Your task to perform on an android device: Show me productivity apps on the Play Store Image 0: 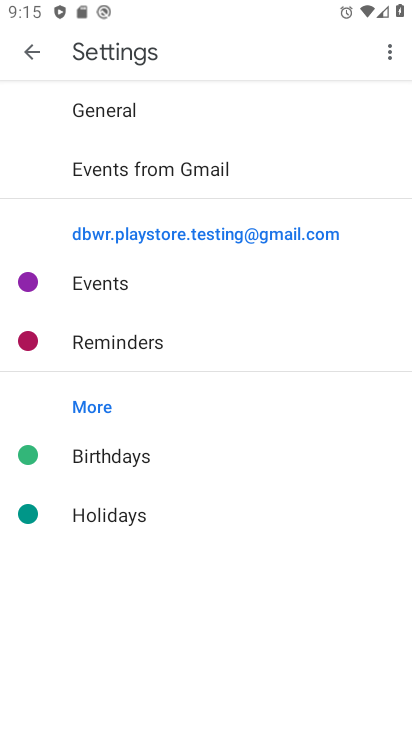
Step 0: press back button
Your task to perform on an android device: Show me productivity apps on the Play Store Image 1: 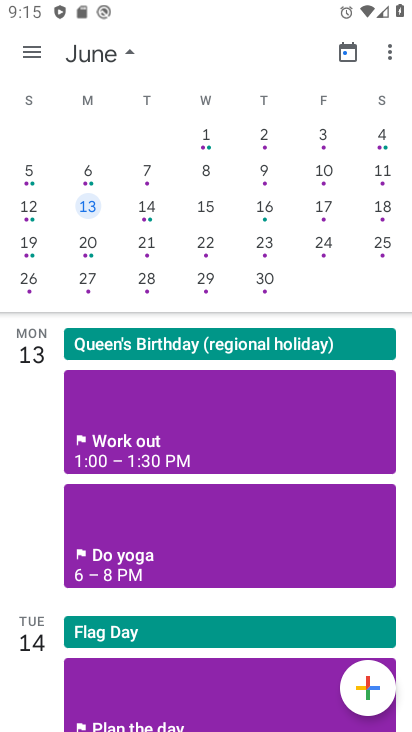
Step 1: press back button
Your task to perform on an android device: Show me productivity apps on the Play Store Image 2: 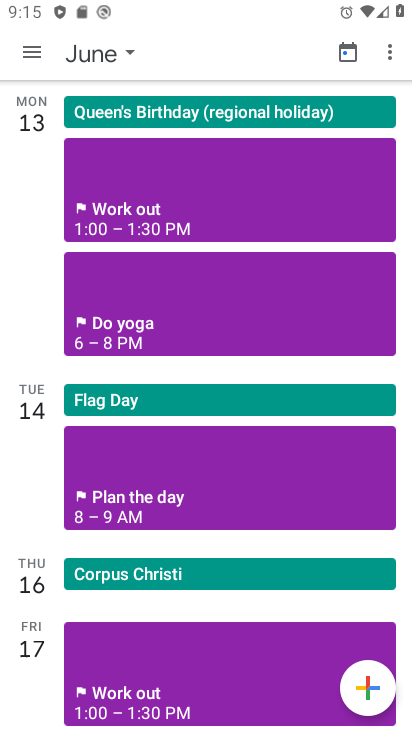
Step 2: press back button
Your task to perform on an android device: Show me productivity apps on the Play Store Image 3: 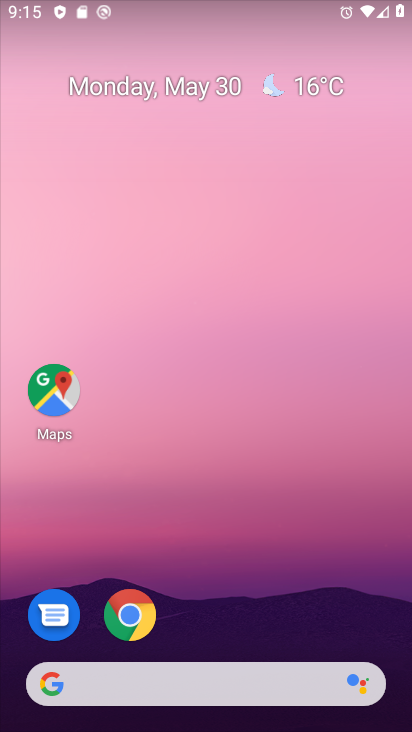
Step 3: drag from (304, 571) to (310, 24)
Your task to perform on an android device: Show me productivity apps on the Play Store Image 4: 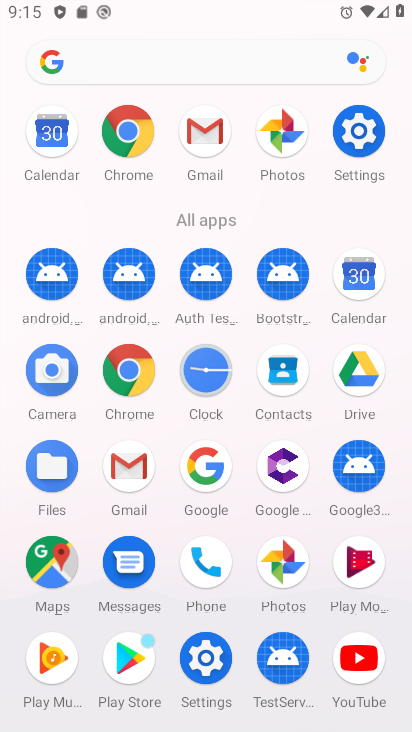
Step 4: click (119, 653)
Your task to perform on an android device: Show me productivity apps on the Play Store Image 5: 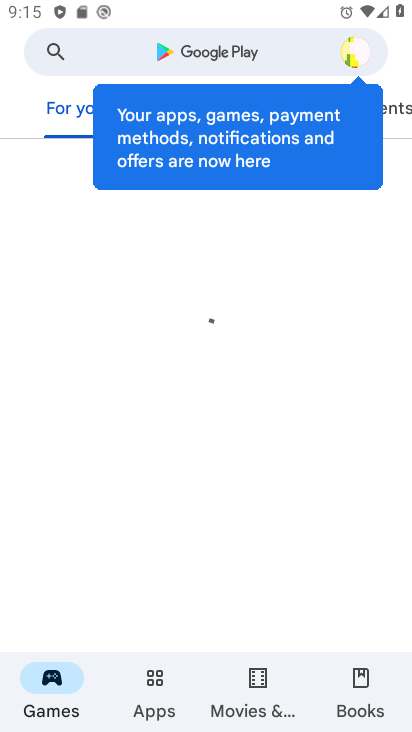
Step 5: press back button
Your task to perform on an android device: Show me productivity apps on the Play Store Image 6: 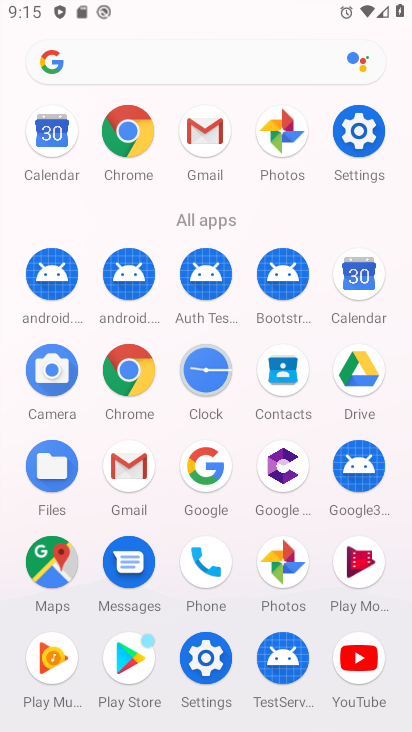
Step 6: click (129, 653)
Your task to perform on an android device: Show me productivity apps on the Play Store Image 7: 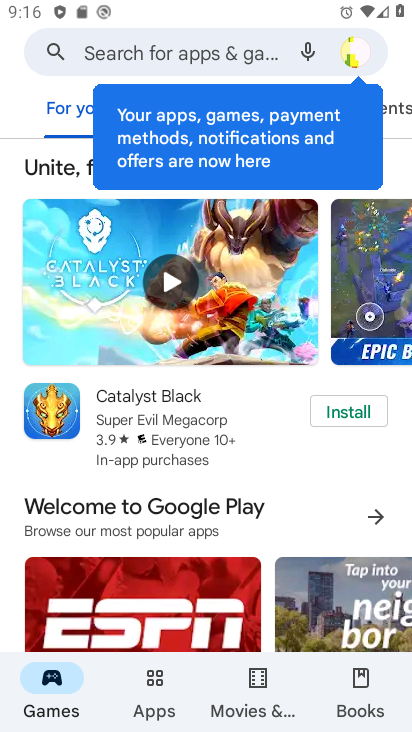
Step 7: click (156, 692)
Your task to perform on an android device: Show me productivity apps on the Play Store Image 8: 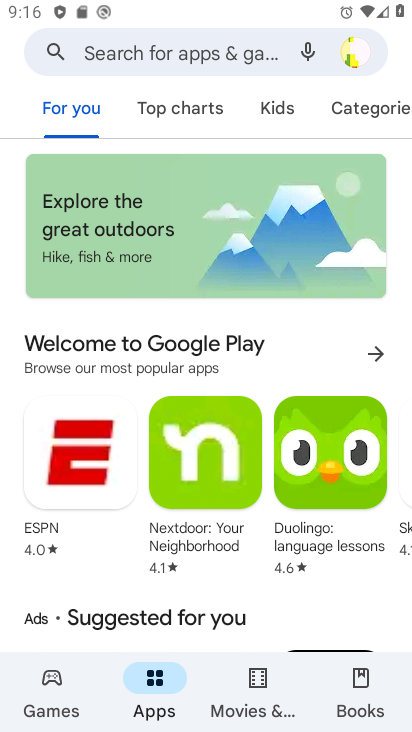
Step 8: drag from (212, 572) to (248, 88)
Your task to perform on an android device: Show me productivity apps on the Play Store Image 9: 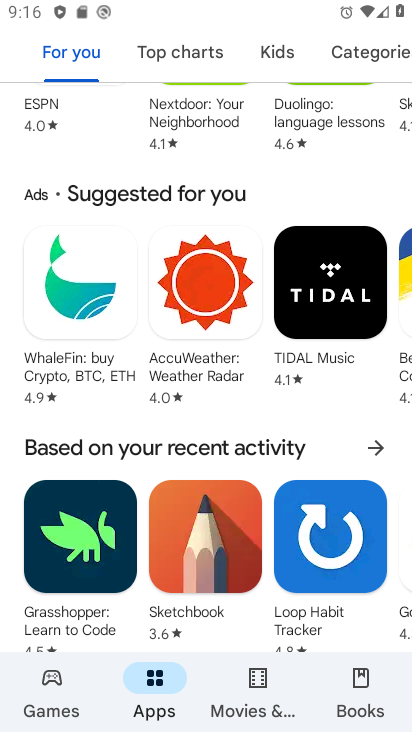
Step 9: drag from (227, 583) to (238, 102)
Your task to perform on an android device: Show me productivity apps on the Play Store Image 10: 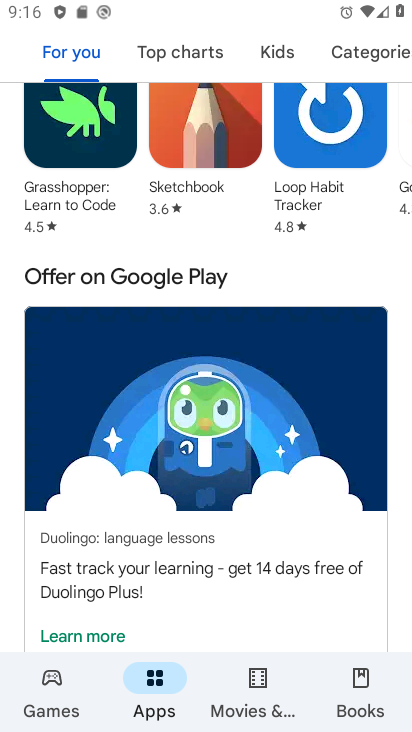
Step 10: drag from (278, 580) to (315, 46)
Your task to perform on an android device: Show me productivity apps on the Play Store Image 11: 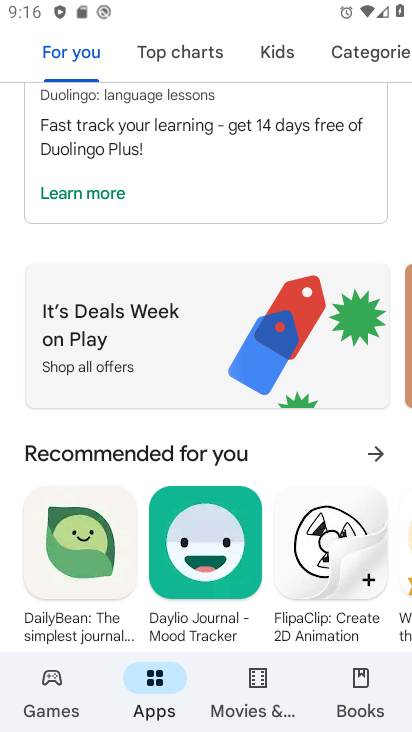
Step 11: drag from (210, 499) to (301, 83)
Your task to perform on an android device: Show me productivity apps on the Play Store Image 12: 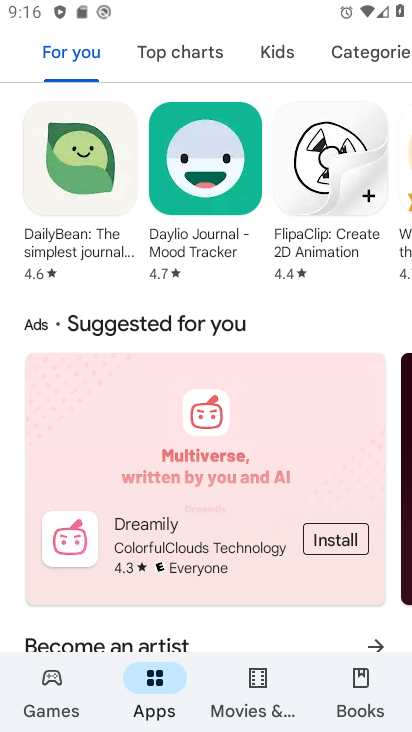
Step 12: drag from (295, 132) to (244, 615)
Your task to perform on an android device: Show me productivity apps on the Play Store Image 13: 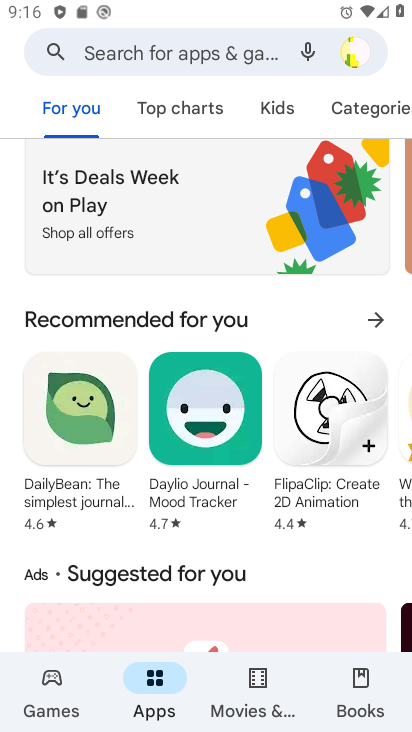
Step 13: drag from (243, 308) to (190, 654)
Your task to perform on an android device: Show me productivity apps on the Play Store Image 14: 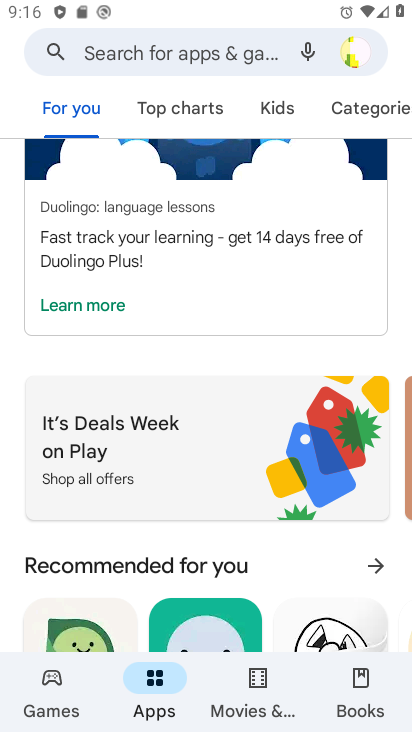
Step 14: drag from (256, 258) to (194, 651)
Your task to perform on an android device: Show me productivity apps on the Play Store Image 15: 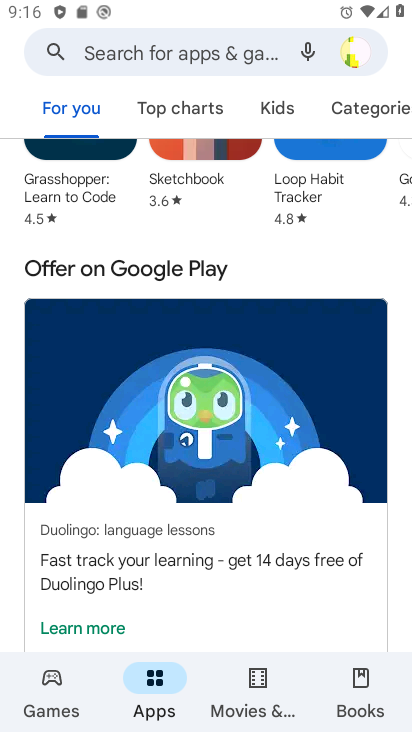
Step 15: drag from (238, 272) to (185, 648)
Your task to perform on an android device: Show me productivity apps on the Play Store Image 16: 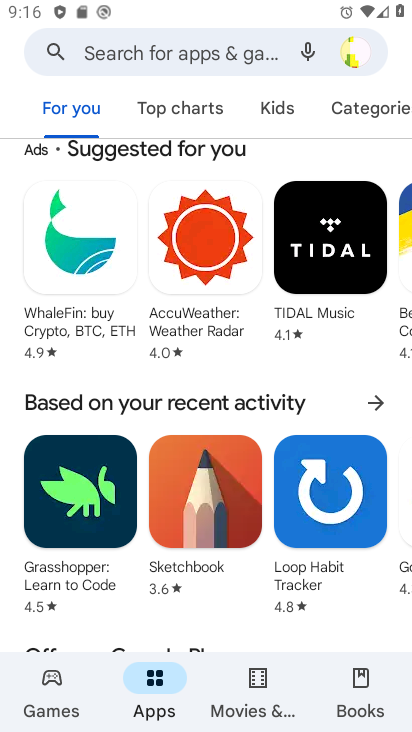
Step 16: drag from (238, 209) to (167, 643)
Your task to perform on an android device: Show me productivity apps on the Play Store Image 17: 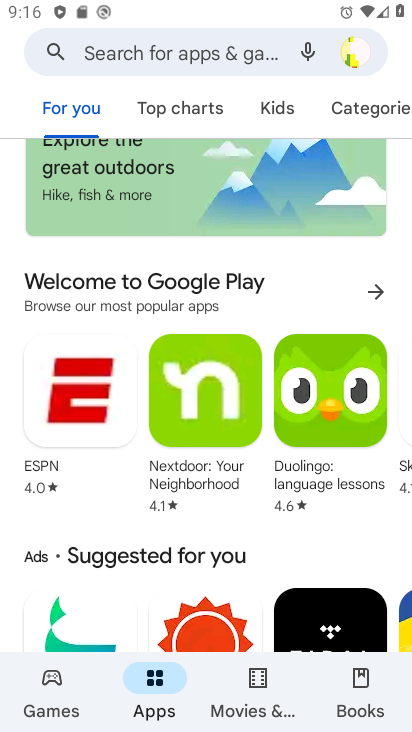
Step 17: drag from (216, 274) to (154, 672)
Your task to perform on an android device: Show me productivity apps on the Play Store Image 18: 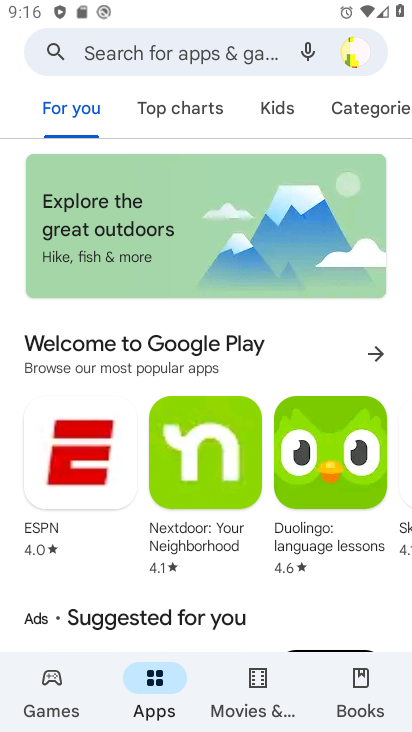
Step 18: drag from (172, 574) to (281, 63)
Your task to perform on an android device: Show me productivity apps on the Play Store Image 19: 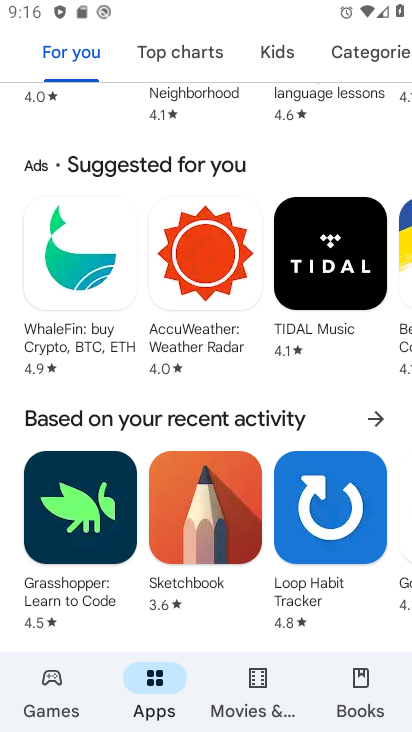
Step 19: drag from (218, 613) to (275, 57)
Your task to perform on an android device: Show me productivity apps on the Play Store Image 20: 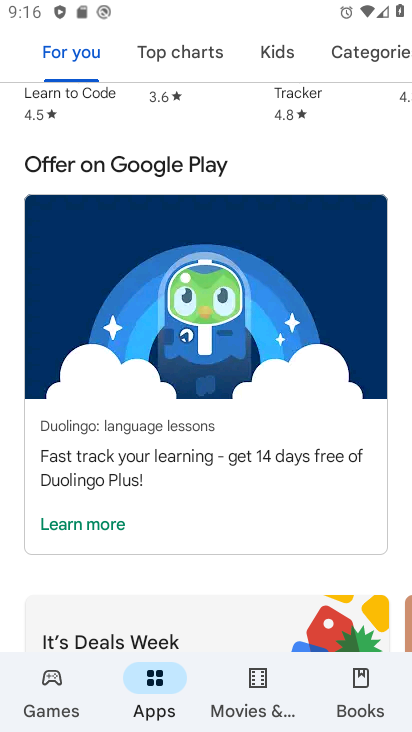
Step 20: drag from (233, 534) to (289, 166)
Your task to perform on an android device: Show me productivity apps on the Play Store Image 21: 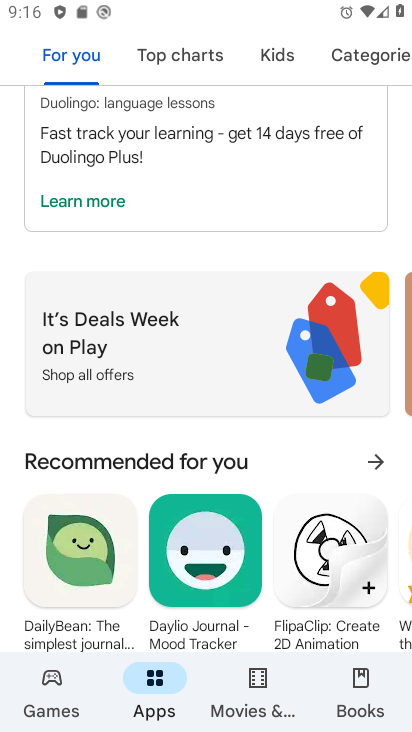
Step 21: drag from (175, 603) to (241, 140)
Your task to perform on an android device: Show me productivity apps on the Play Store Image 22: 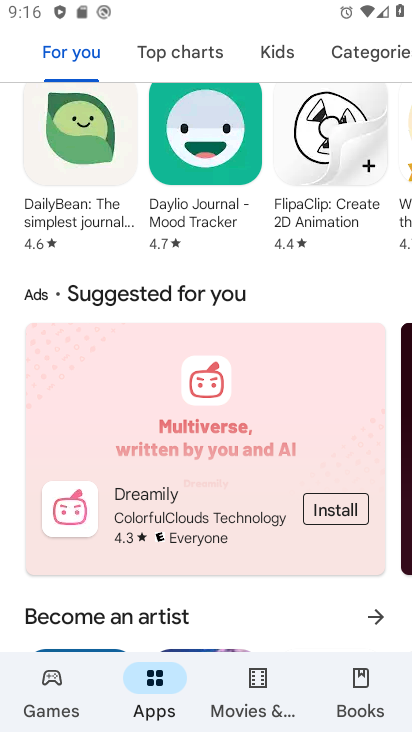
Step 22: drag from (162, 592) to (287, 49)
Your task to perform on an android device: Show me productivity apps on the Play Store Image 23: 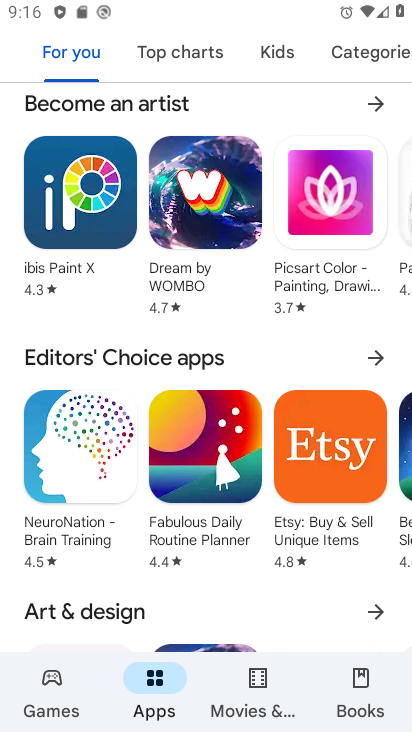
Step 23: drag from (198, 604) to (342, 84)
Your task to perform on an android device: Show me productivity apps on the Play Store Image 24: 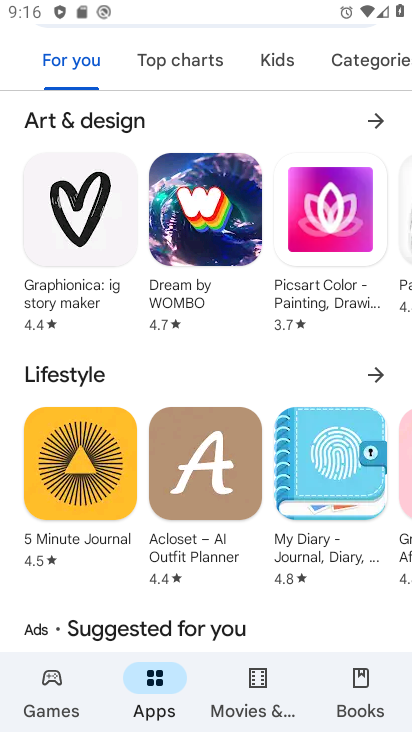
Step 24: drag from (214, 621) to (330, 75)
Your task to perform on an android device: Show me productivity apps on the Play Store Image 25: 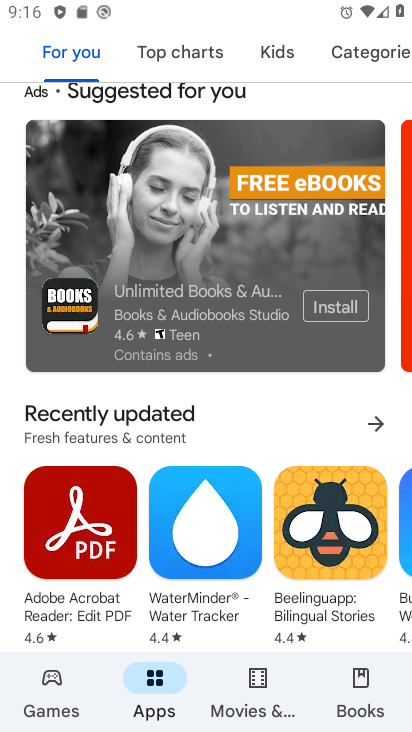
Step 25: drag from (225, 481) to (278, 76)
Your task to perform on an android device: Show me productivity apps on the Play Store Image 26: 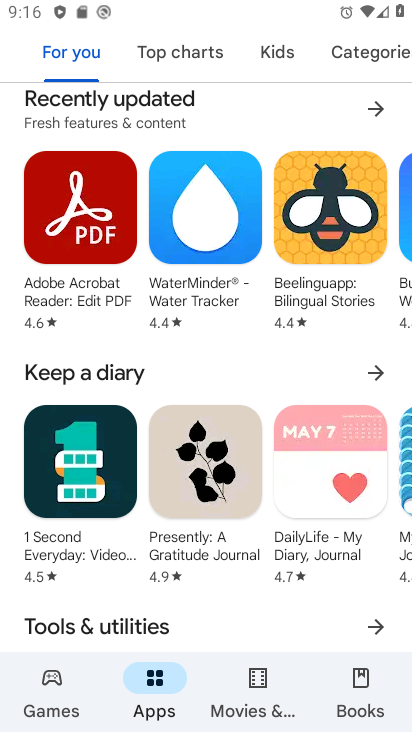
Step 26: drag from (241, 576) to (309, 98)
Your task to perform on an android device: Show me productivity apps on the Play Store Image 27: 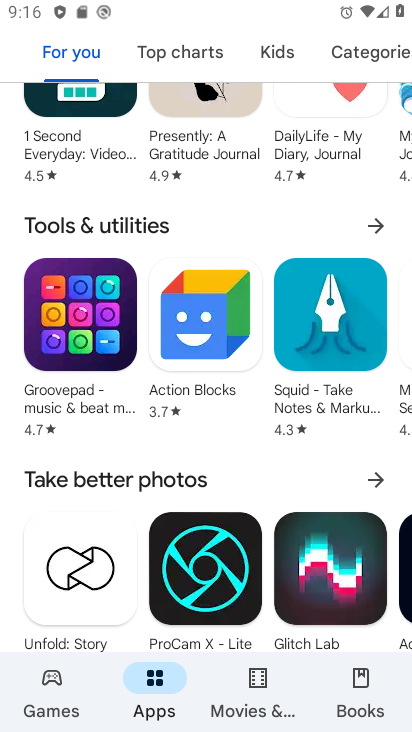
Step 27: drag from (210, 603) to (334, 12)
Your task to perform on an android device: Show me productivity apps on the Play Store Image 28: 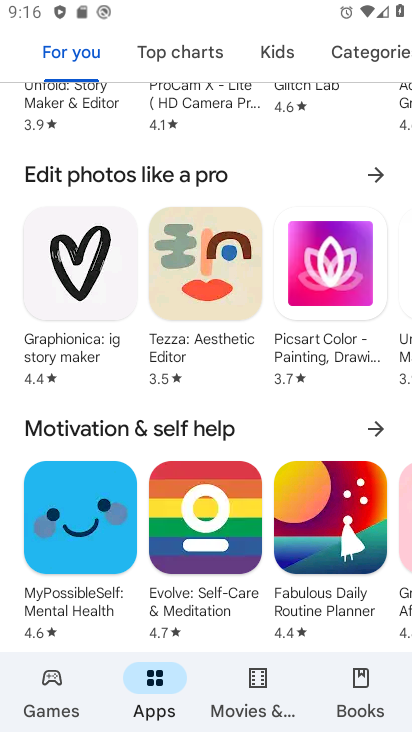
Step 28: drag from (200, 591) to (354, 39)
Your task to perform on an android device: Show me productivity apps on the Play Store Image 29: 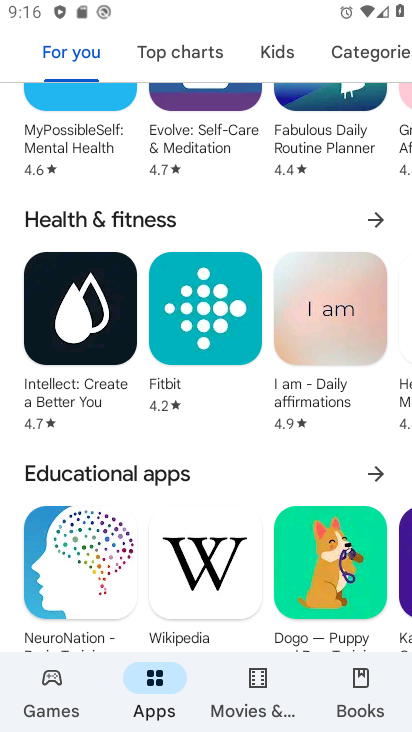
Step 29: drag from (183, 577) to (313, 89)
Your task to perform on an android device: Show me productivity apps on the Play Store Image 30: 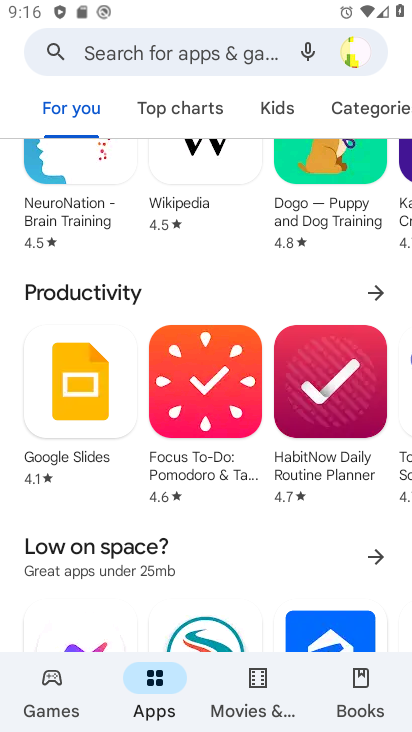
Step 30: click (377, 289)
Your task to perform on an android device: Show me productivity apps on the Play Store Image 31: 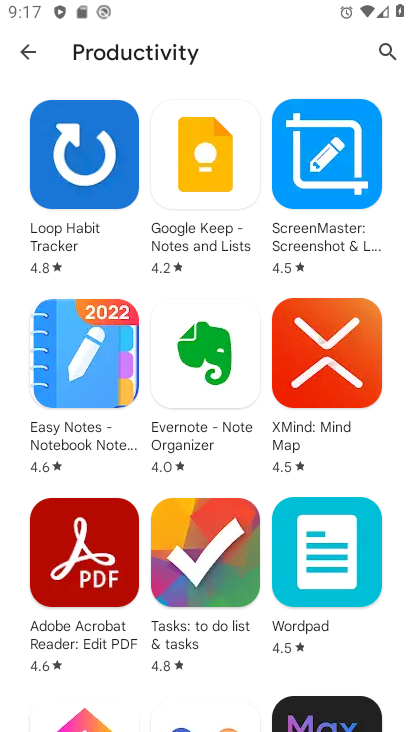
Step 31: task complete